Your task to perform on an android device: Show me popular videos on Youtube Image 0: 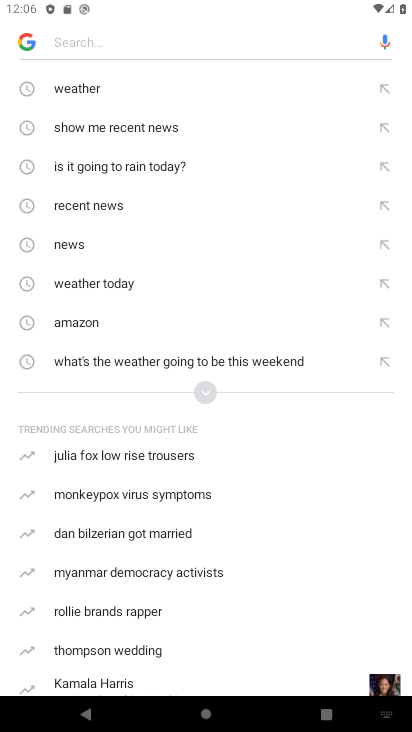
Step 0: press back button
Your task to perform on an android device: Show me popular videos on Youtube Image 1: 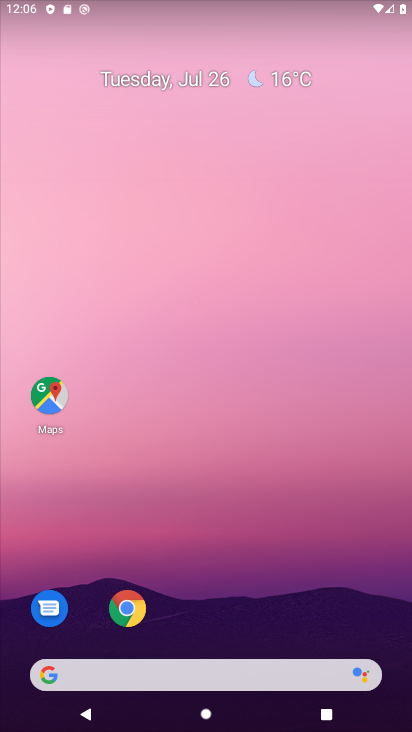
Step 1: drag from (207, 636) to (257, 135)
Your task to perform on an android device: Show me popular videos on Youtube Image 2: 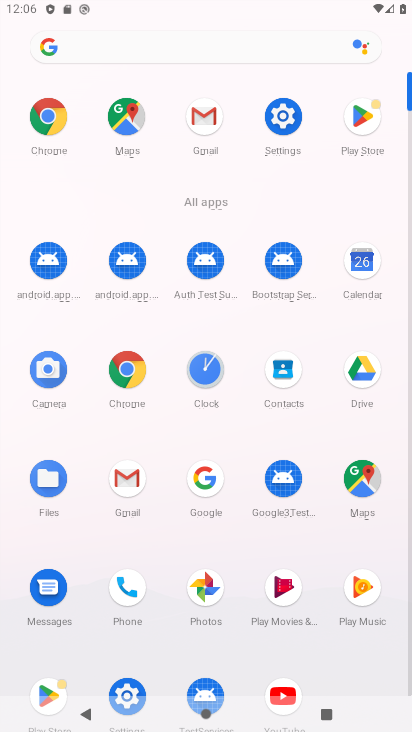
Step 2: click (287, 691)
Your task to perform on an android device: Show me popular videos on Youtube Image 3: 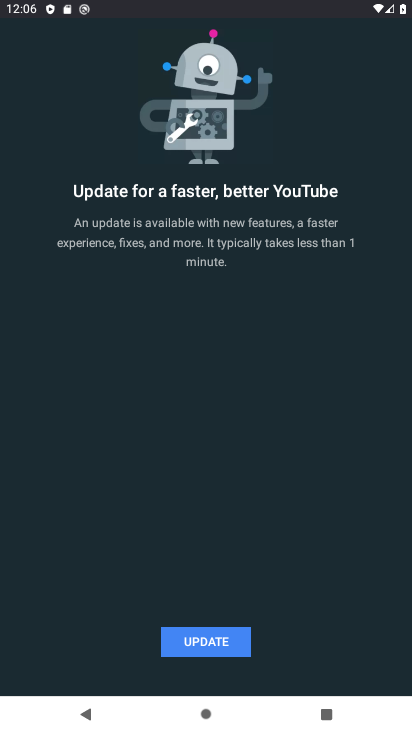
Step 3: click (219, 634)
Your task to perform on an android device: Show me popular videos on Youtube Image 4: 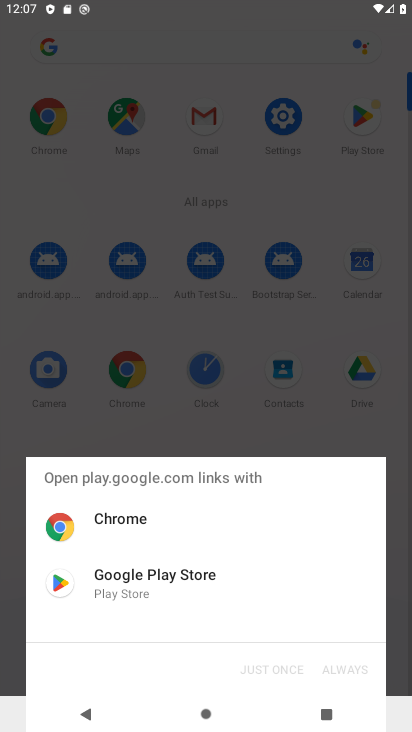
Step 4: click (233, 586)
Your task to perform on an android device: Show me popular videos on Youtube Image 5: 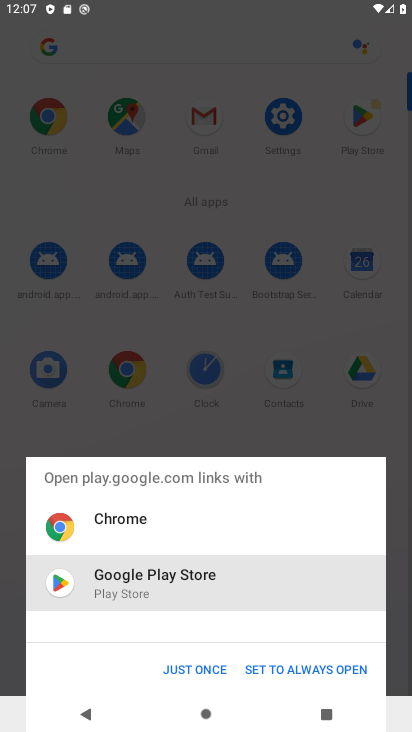
Step 5: click (175, 665)
Your task to perform on an android device: Show me popular videos on Youtube Image 6: 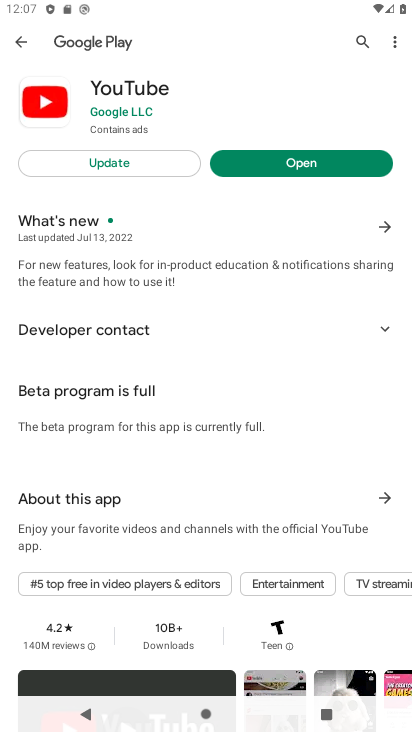
Step 6: task complete